Your task to perform on an android device: Set the phone to "Do not disturb". Image 0: 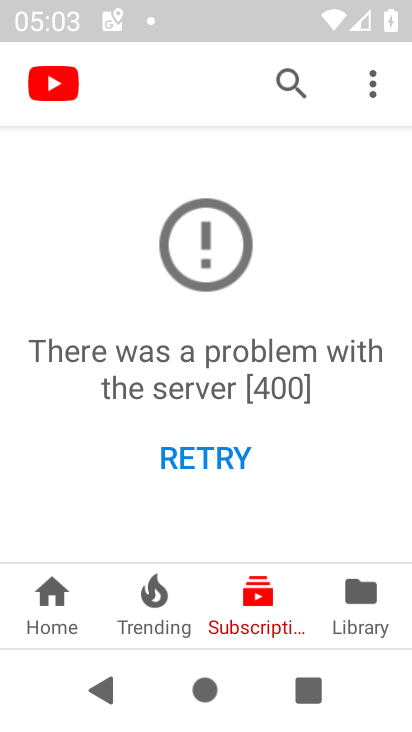
Step 0: drag from (190, 25) to (124, 602)
Your task to perform on an android device: Set the phone to "Do not disturb". Image 1: 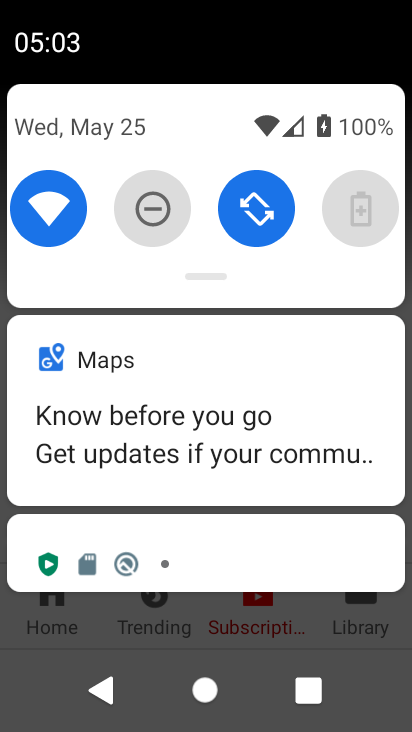
Step 1: click (174, 198)
Your task to perform on an android device: Set the phone to "Do not disturb". Image 2: 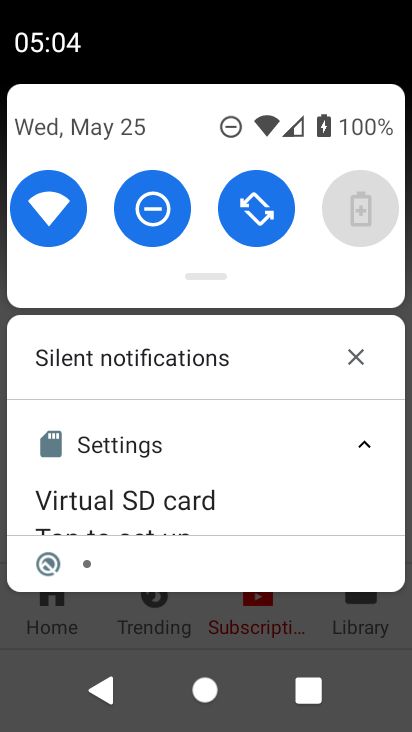
Step 2: task complete